Your task to perform on an android device: Go to Wikipedia Image 0: 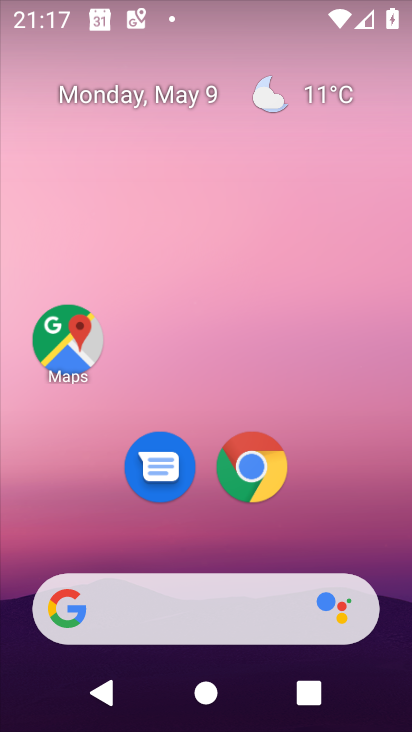
Step 0: drag from (377, 588) to (347, 276)
Your task to perform on an android device: Go to Wikipedia Image 1: 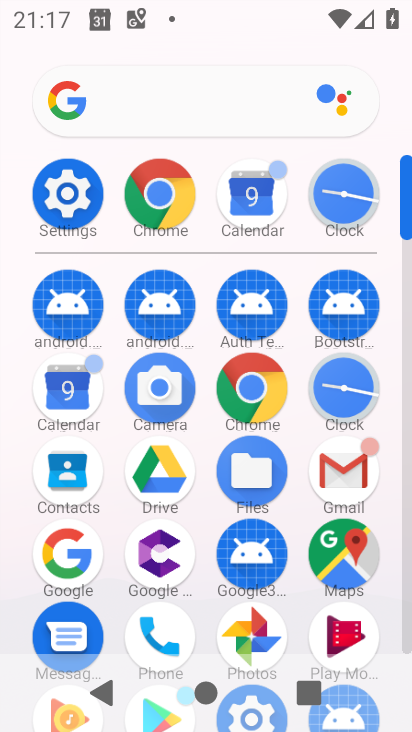
Step 1: click (243, 389)
Your task to perform on an android device: Go to Wikipedia Image 2: 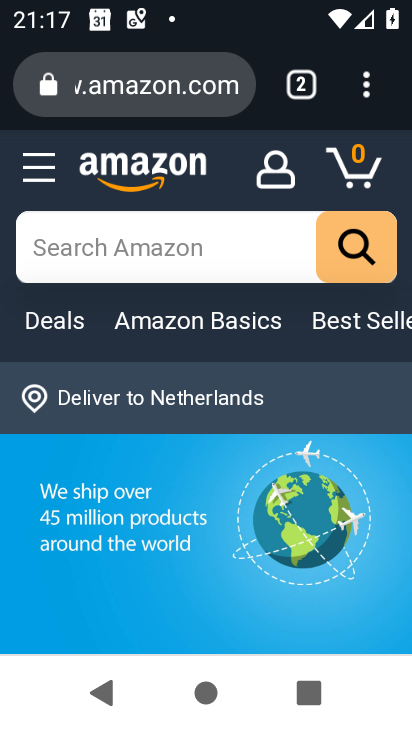
Step 2: click (356, 85)
Your task to perform on an android device: Go to Wikipedia Image 3: 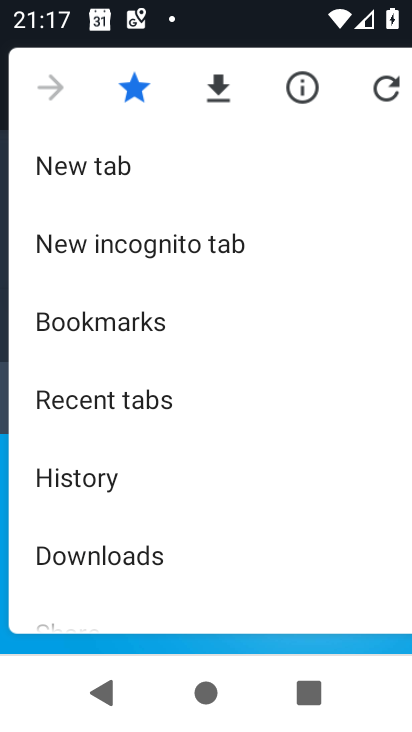
Step 3: drag from (186, 543) to (271, 226)
Your task to perform on an android device: Go to Wikipedia Image 4: 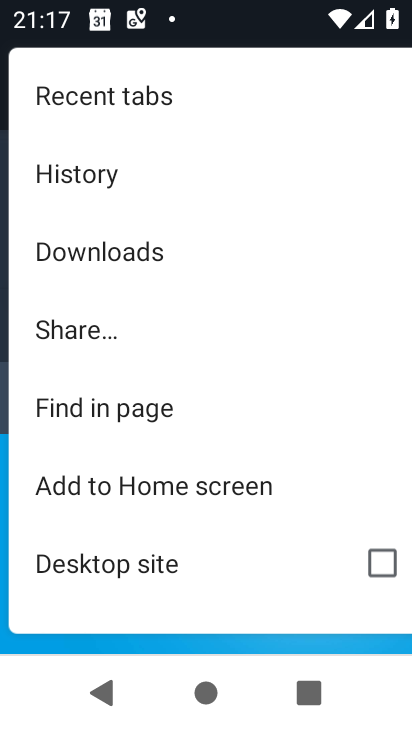
Step 4: drag from (192, 491) to (232, 410)
Your task to perform on an android device: Go to Wikipedia Image 5: 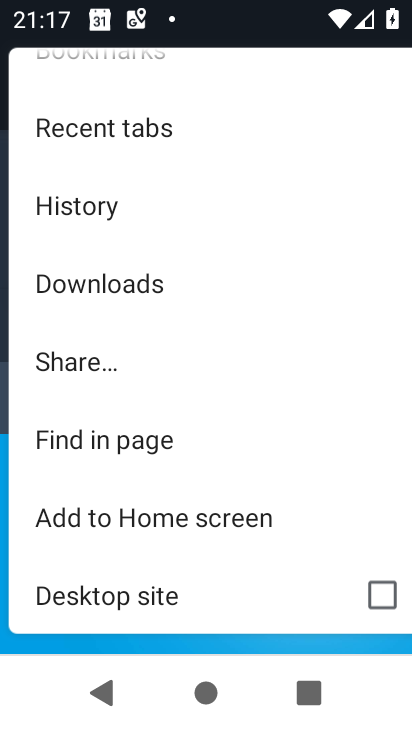
Step 5: drag from (239, 176) to (244, 350)
Your task to perform on an android device: Go to Wikipedia Image 6: 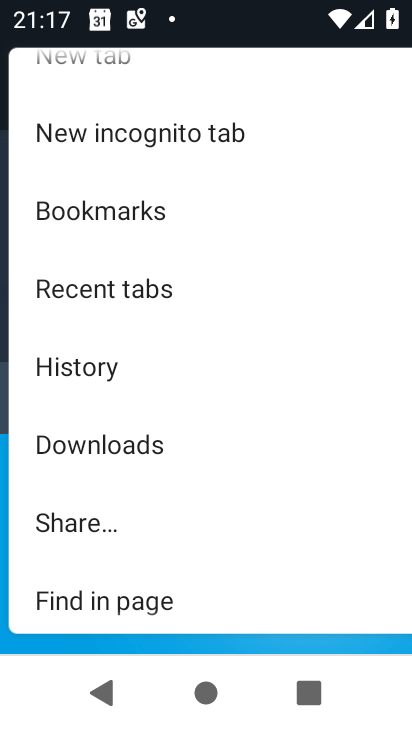
Step 6: drag from (229, 149) to (186, 559)
Your task to perform on an android device: Go to Wikipedia Image 7: 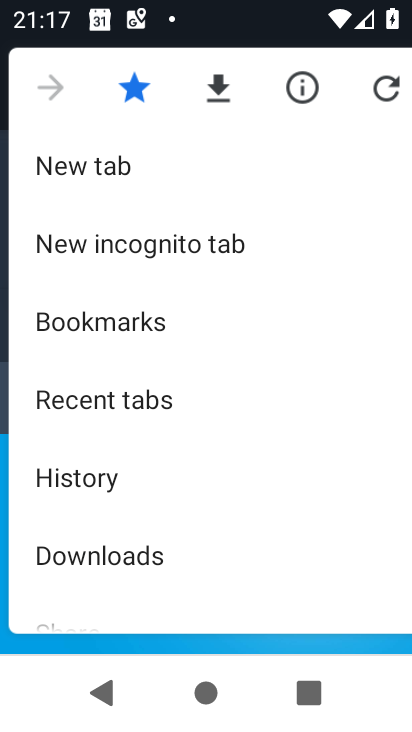
Step 7: click (115, 170)
Your task to perform on an android device: Go to Wikipedia Image 8: 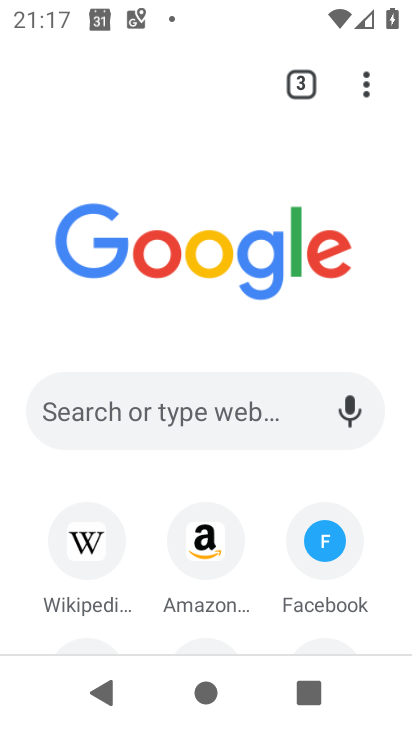
Step 8: click (93, 534)
Your task to perform on an android device: Go to Wikipedia Image 9: 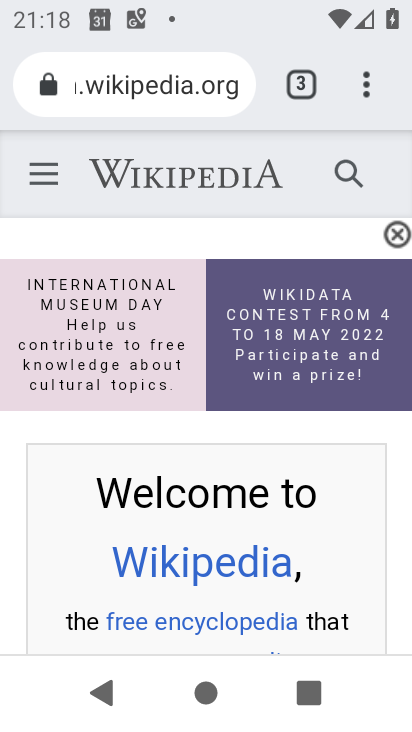
Step 9: task complete